Your task to perform on an android device: change alarm snooze length Image 0: 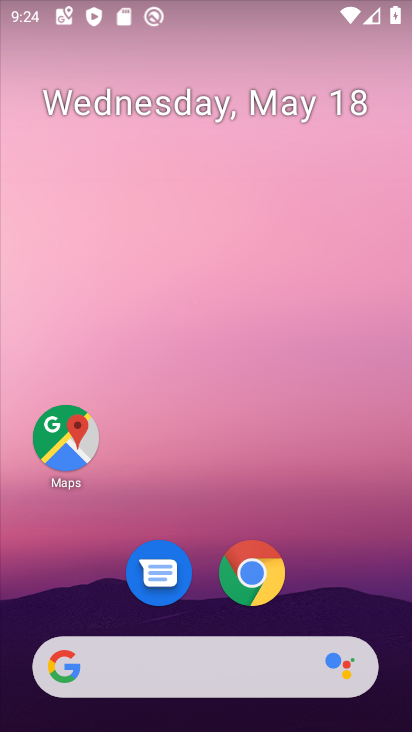
Step 0: drag from (137, 430) to (226, 27)
Your task to perform on an android device: change alarm snooze length Image 1: 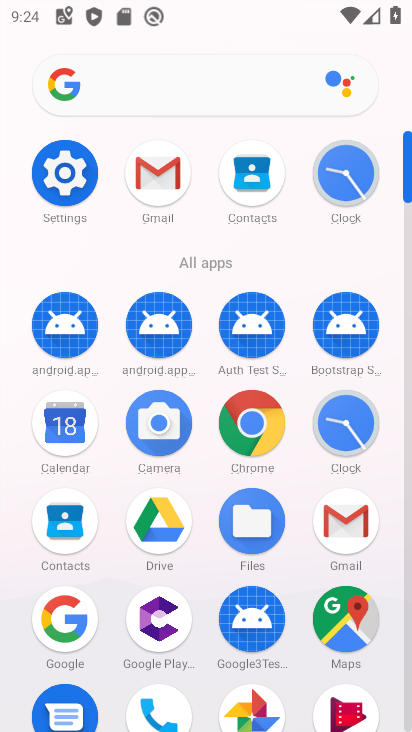
Step 1: click (326, 171)
Your task to perform on an android device: change alarm snooze length Image 2: 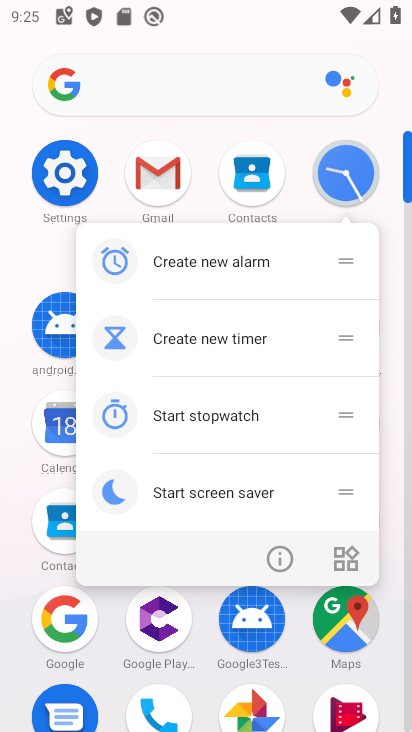
Step 2: click (359, 167)
Your task to perform on an android device: change alarm snooze length Image 3: 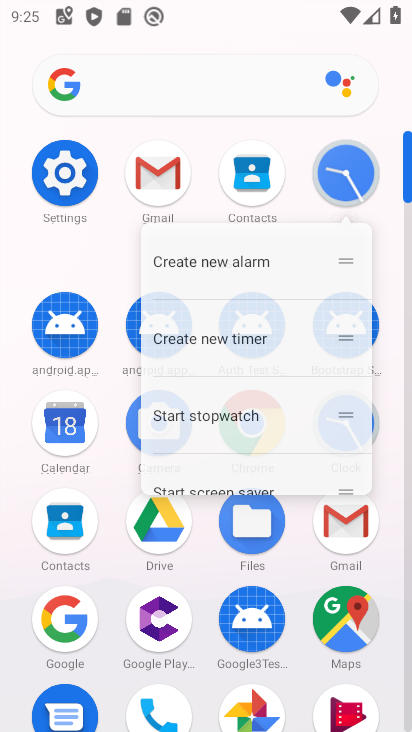
Step 3: click (359, 167)
Your task to perform on an android device: change alarm snooze length Image 4: 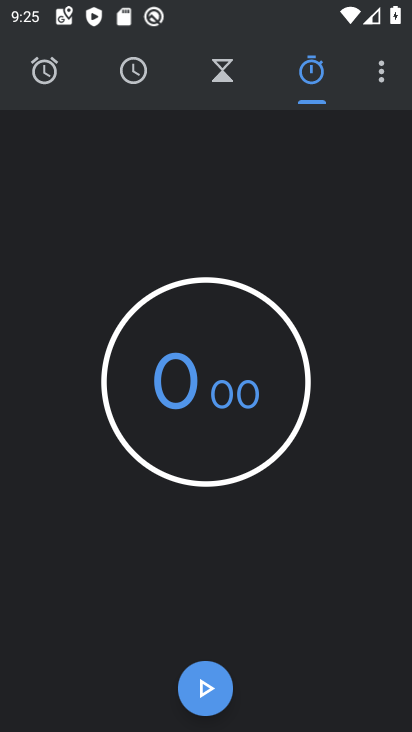
Step 4: click (387, 68)
Your task to perform on an android device: change alarm snooze length Image 5: 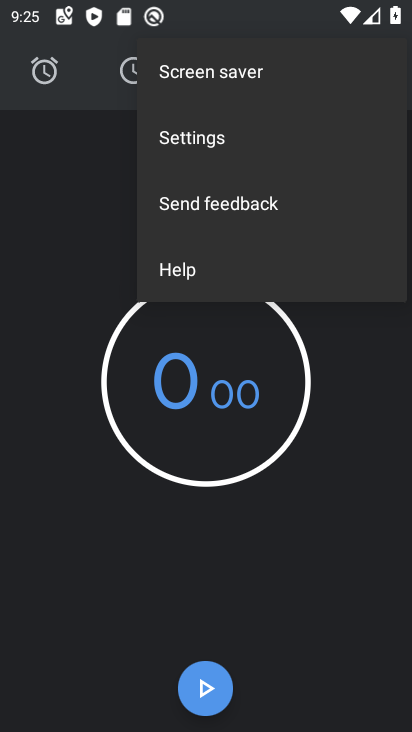
Step 5: click (244, 133)
Your task to perform on an android device: change alarm snooze length Image 6: 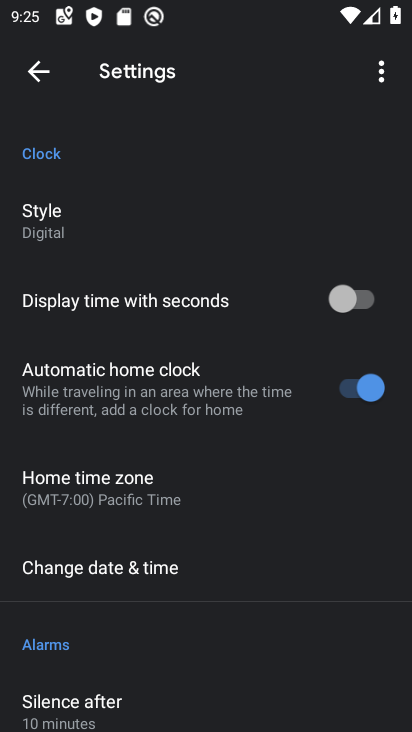
Step 6: drag from (266, 669) to (329, 180)
Your task to perform on an android device: change alarm snooze length Image 7: 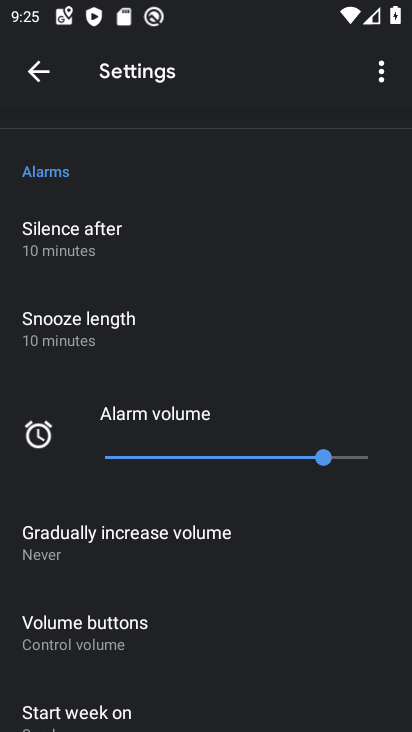
Step 7: click (183, 334)
Your task to perform on an android device: change alarm snooze length Image 8: 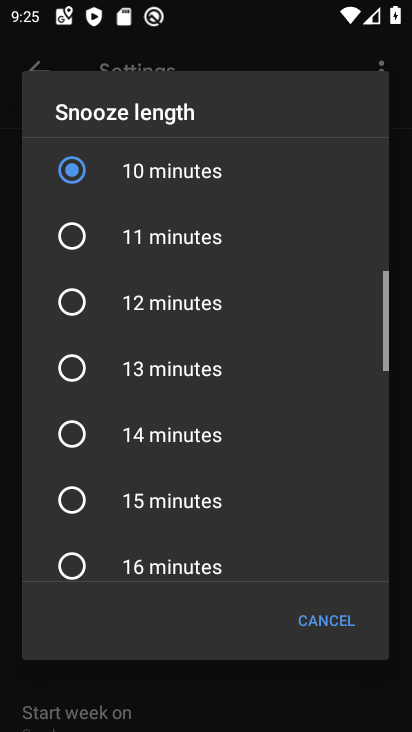
Step 8: click (233, 308)
Your task to perform on an android device: change alarm snooze length Image 9: 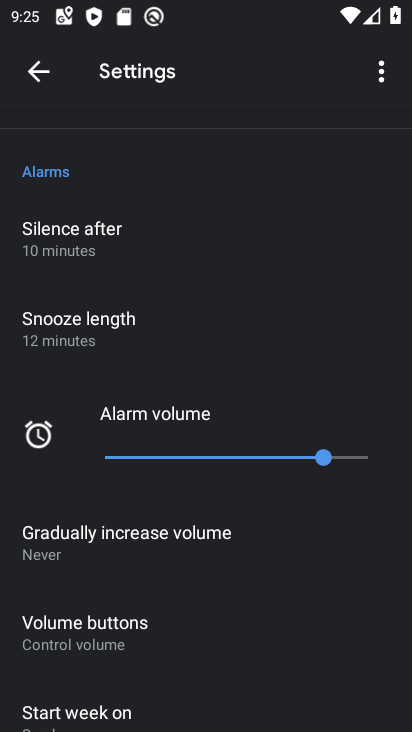
Step 9: task complete